Your task to perform on an android device: show emergency info Image 0: 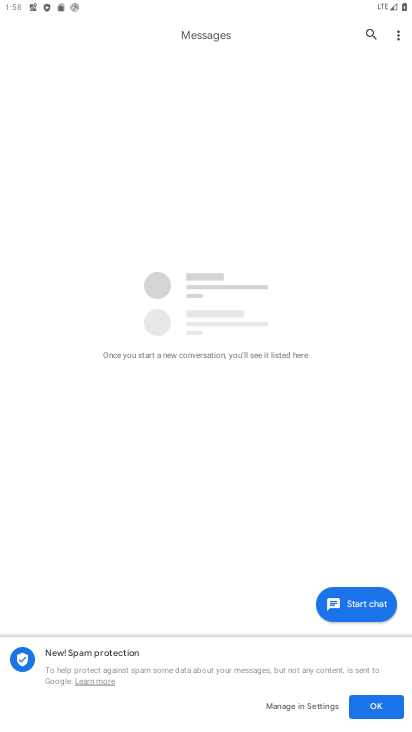
Step 0: press home button
Your task to perform on an android device: show emergency info Image 1: 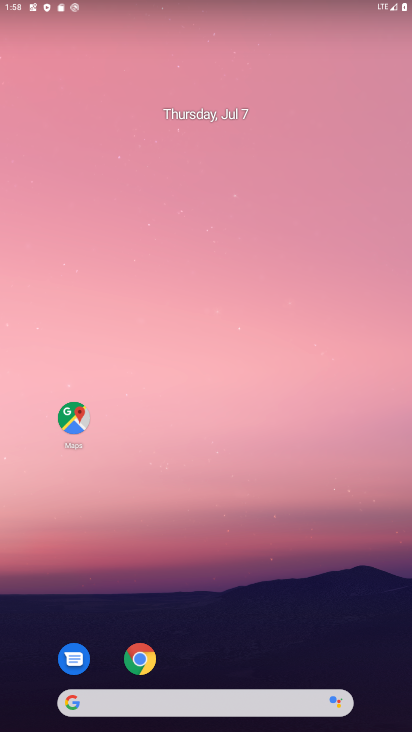
Step 1: drag from (236, 651) to (277, 140)
Your task to perform on an android device: show emergency info Image 2: 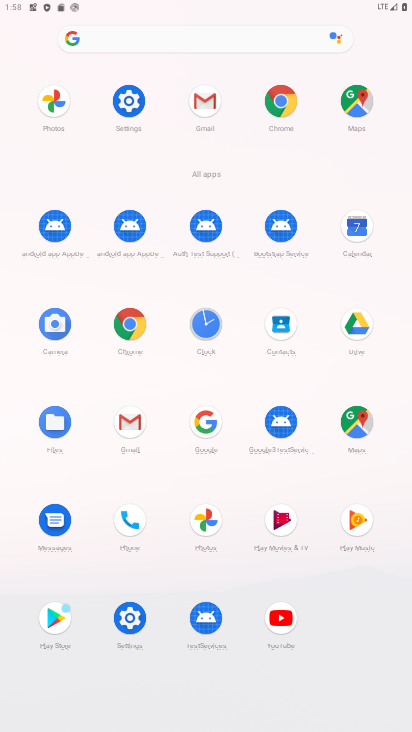
Step 2: click (129, 101)
Your task to perform on an android device: show emergency info Image 3: 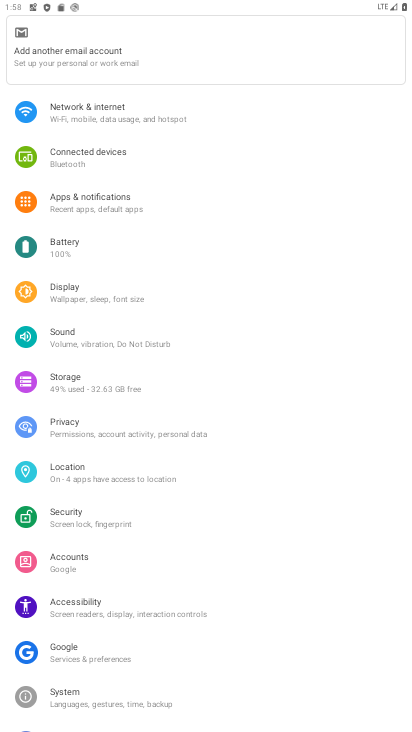
Step 3: drag from (73, 444) to (114, 379)
Your task to perform on an android device: show emergency info Image 4: 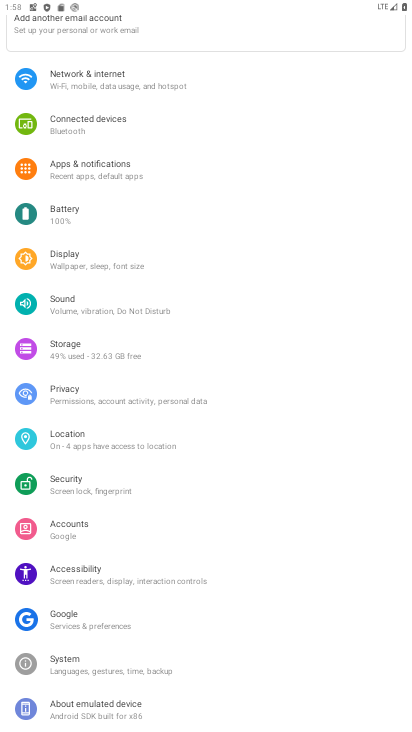
Step 4: drag from (79, 646) to (97, 581)
Your task to perform on an android device: show emergency info Image 5: 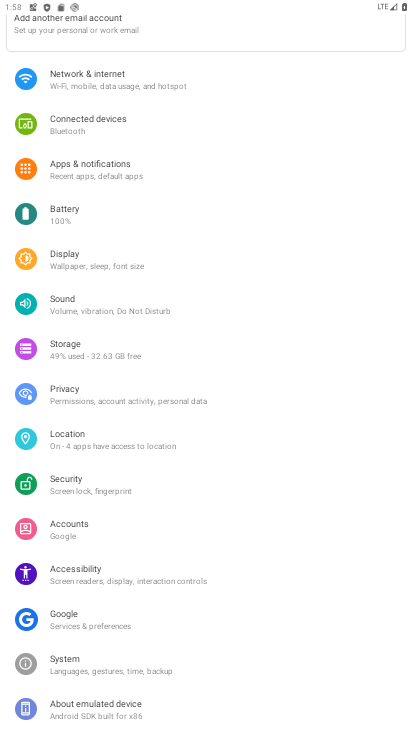
Step 5: click (117, 698)
Your task to perform on an android device: show emergency info Image 6: 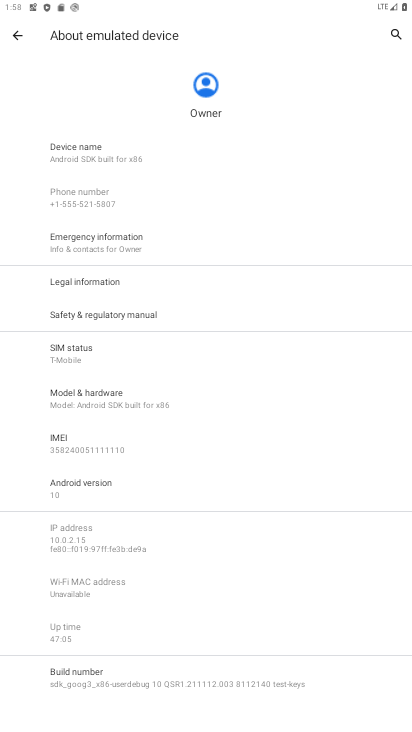
Step 6: click (108, 236)
Your task to perform on an android device: show emergency info Image 7: 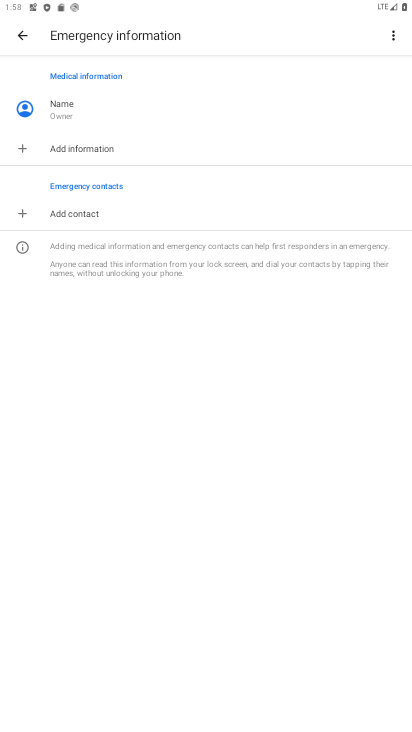
Step 7: task complete